Your task to perform on an android device: Open Maps and search for coffee Image 0: 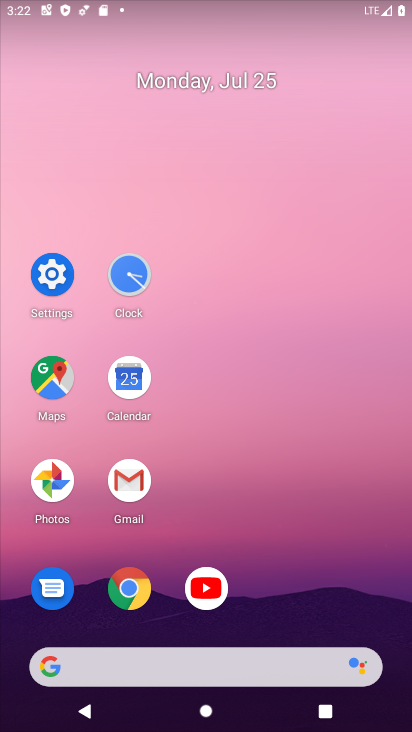
Step 0: click (44, 375)
Your task to perform on an android device: Open Maps and search for coffee Image 1: 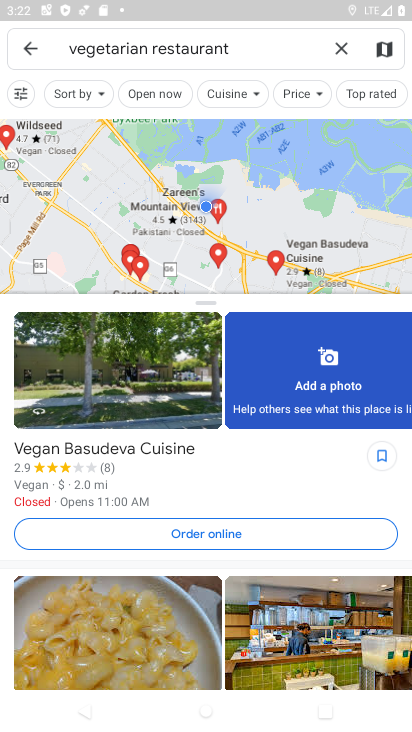
Step 1: click (340, 45)
Your task to perform on an android device: Open Maps and search for coffee Image 2: 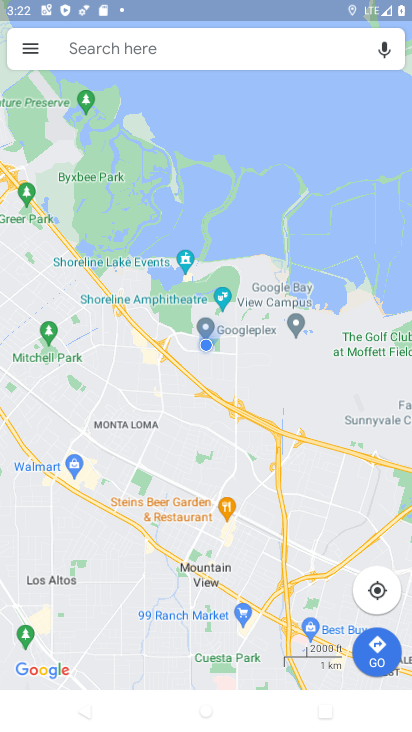
Step 2: click (226, 48)
Your task to perform on an android device: Open Maps and search for coffee Image 3: 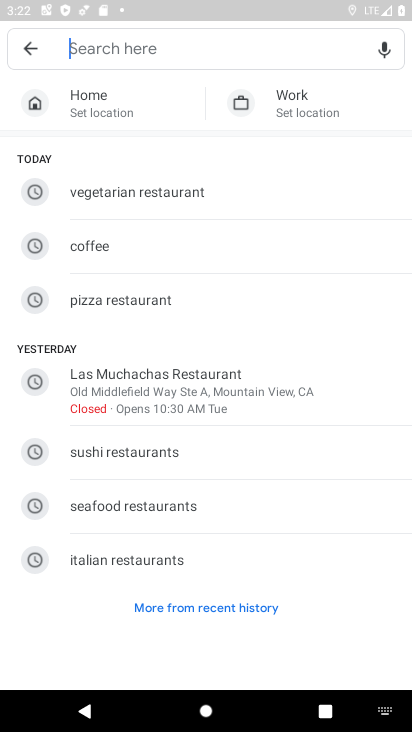
Step 3: type "coffee"
Your task to perform on an android device: Open Maps and search for coffee Image 4: 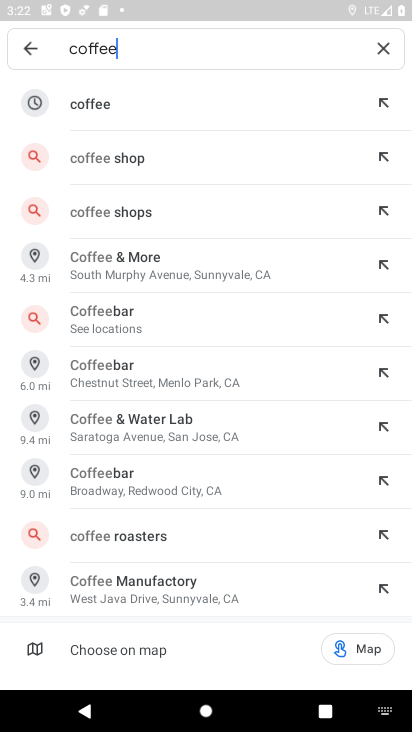
Step 4: click (85, 102)
Your task to perform on an android device: Open Maps and search for coffee Image 5: 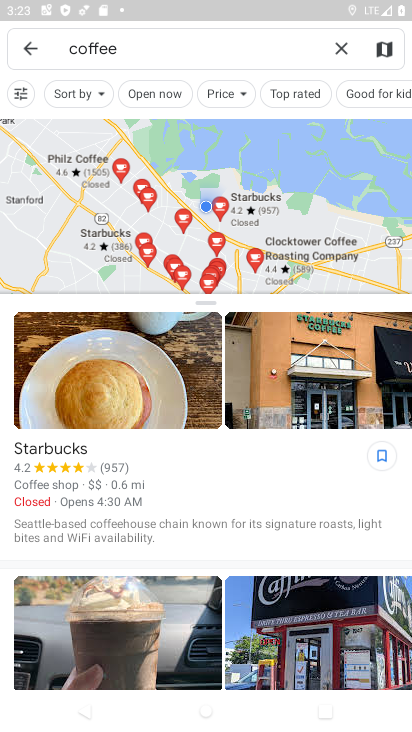
Step 5: task complete